Your task to perform on an android device: open device folders in google photos Image 0: 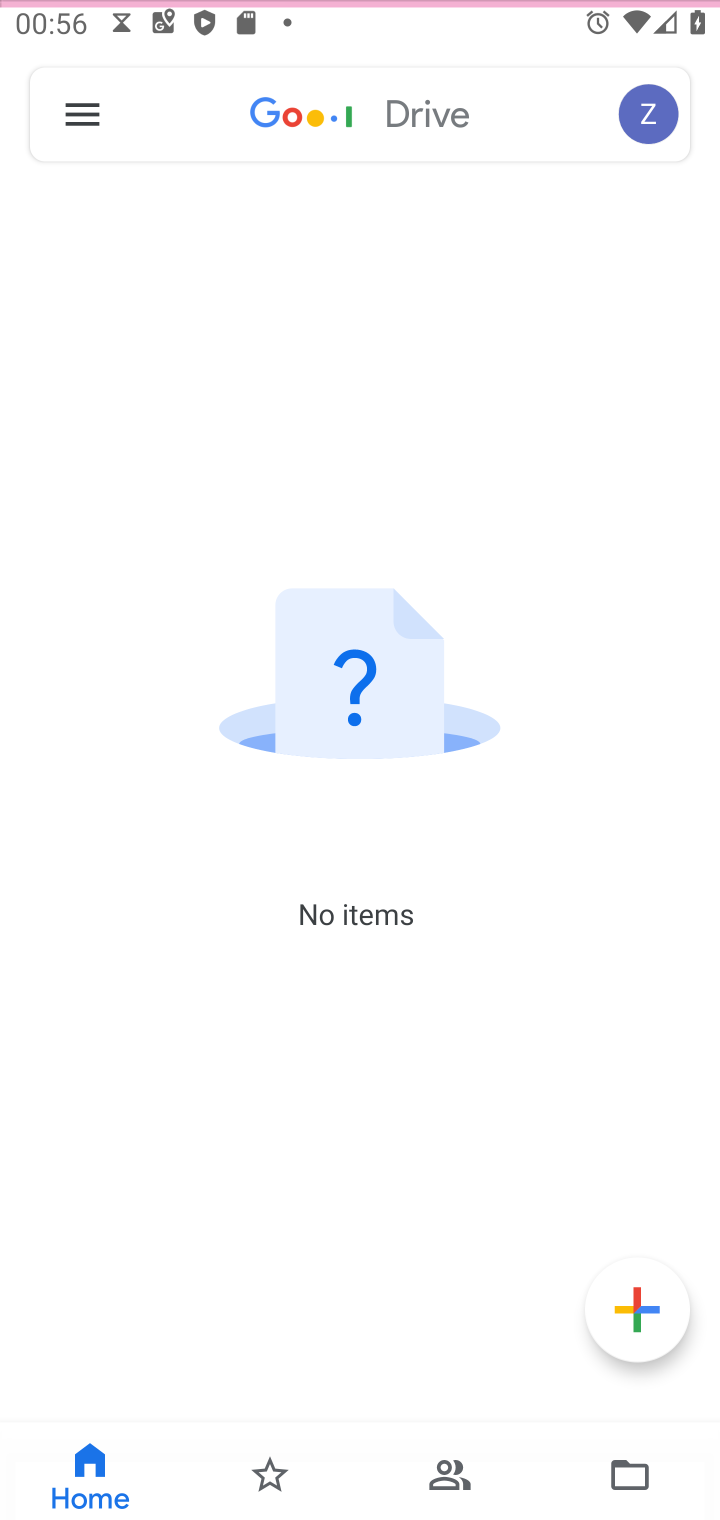
Step 0: press home button
Your task to perform on an android device: open device folders in google photos Image 1: 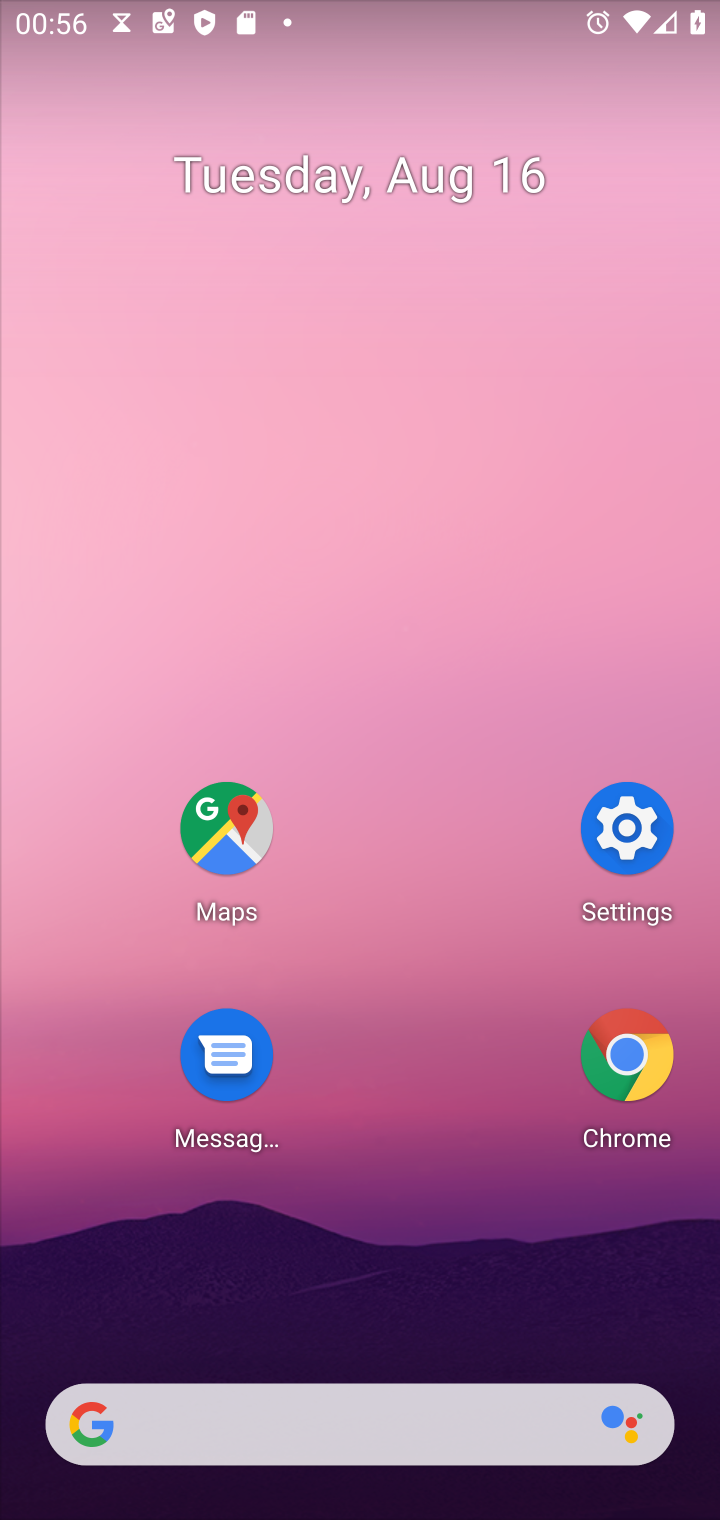
Step 1: press home button
Your task to perform on an android device: open device folders in google photos Image 2: 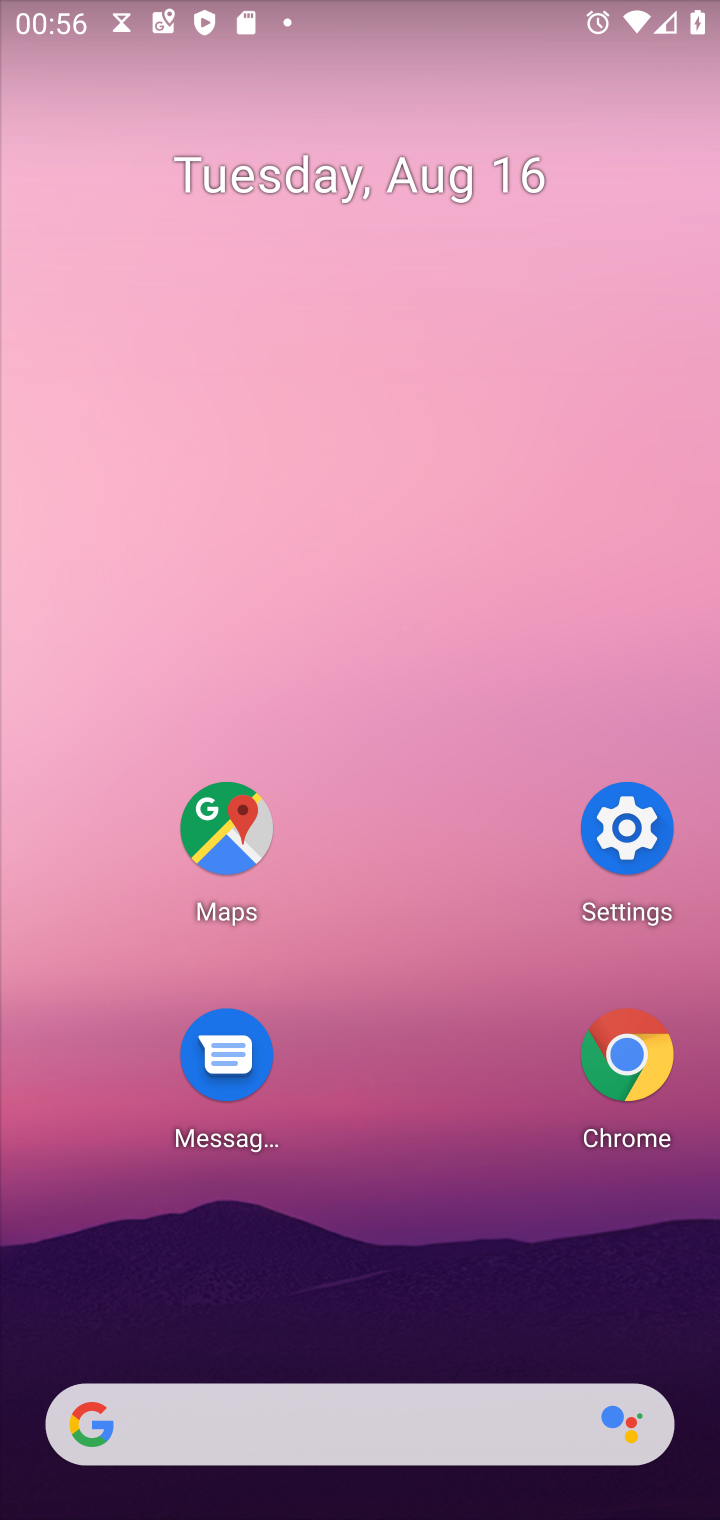
Step 2: drag from (412, 1055) to (545, 59)
Your task to perform on an android device: open device folders in google photos Image 3: 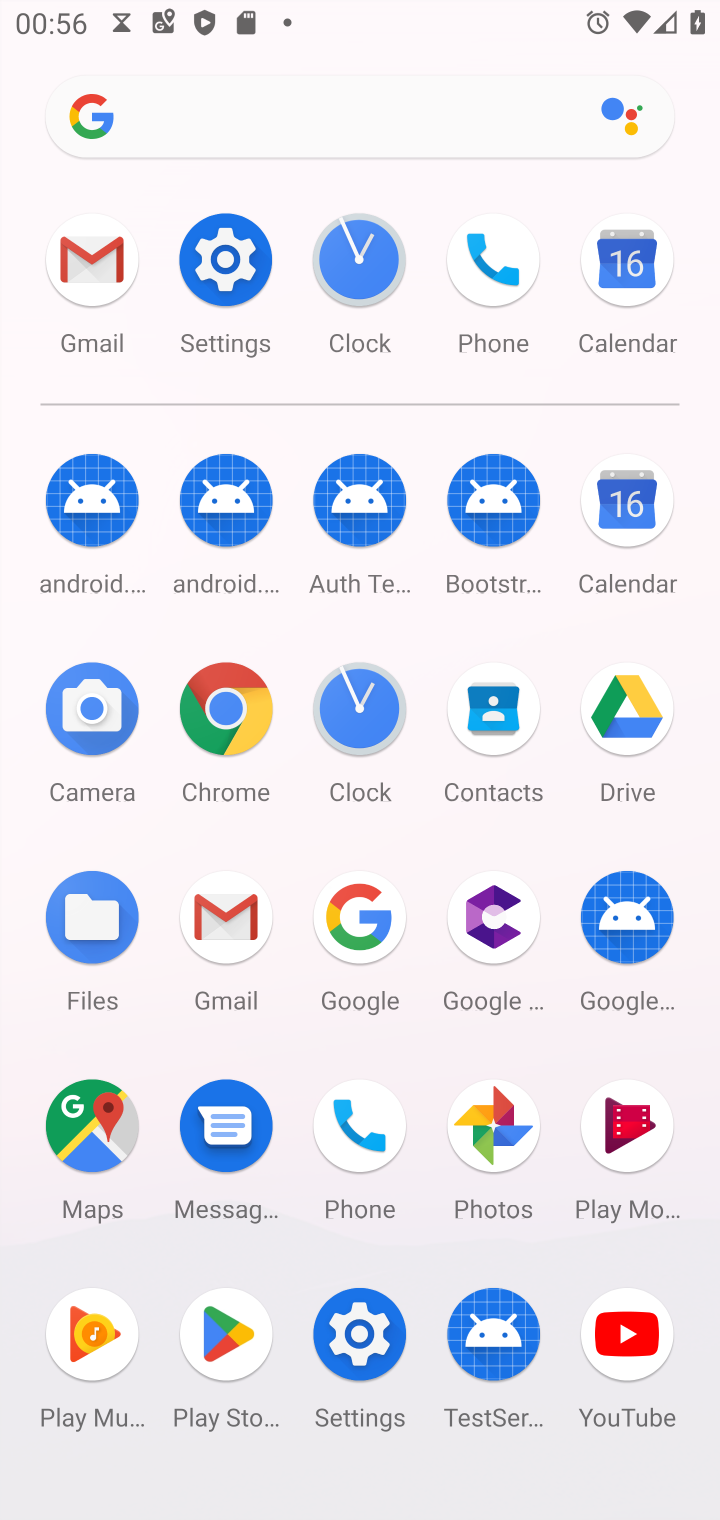
Step 3: click (502, 1116)
Your task to perform on an android device: open device folders in google photos Image 4: 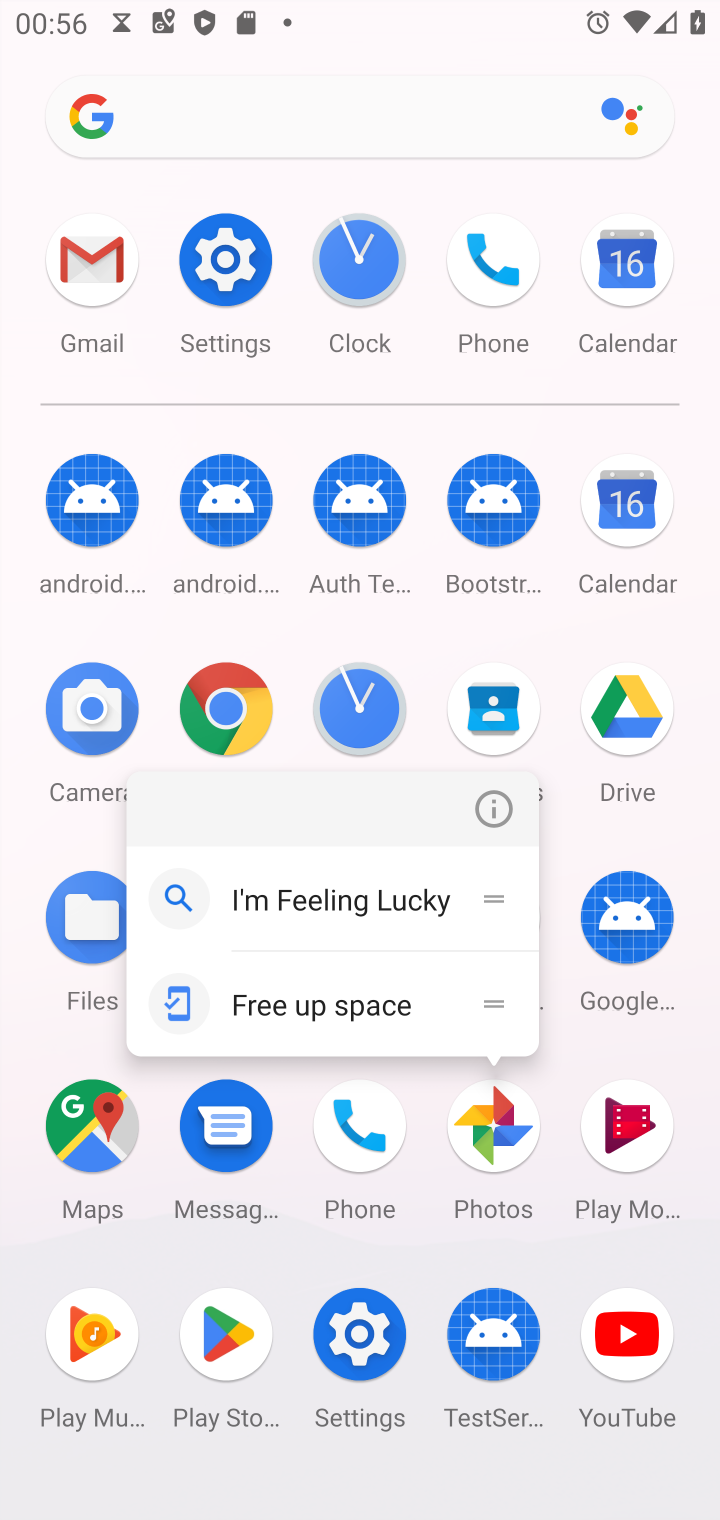
Step 4: click (494, 1131)
Your task to perform on an android device: open device folders in google photos Image 5: 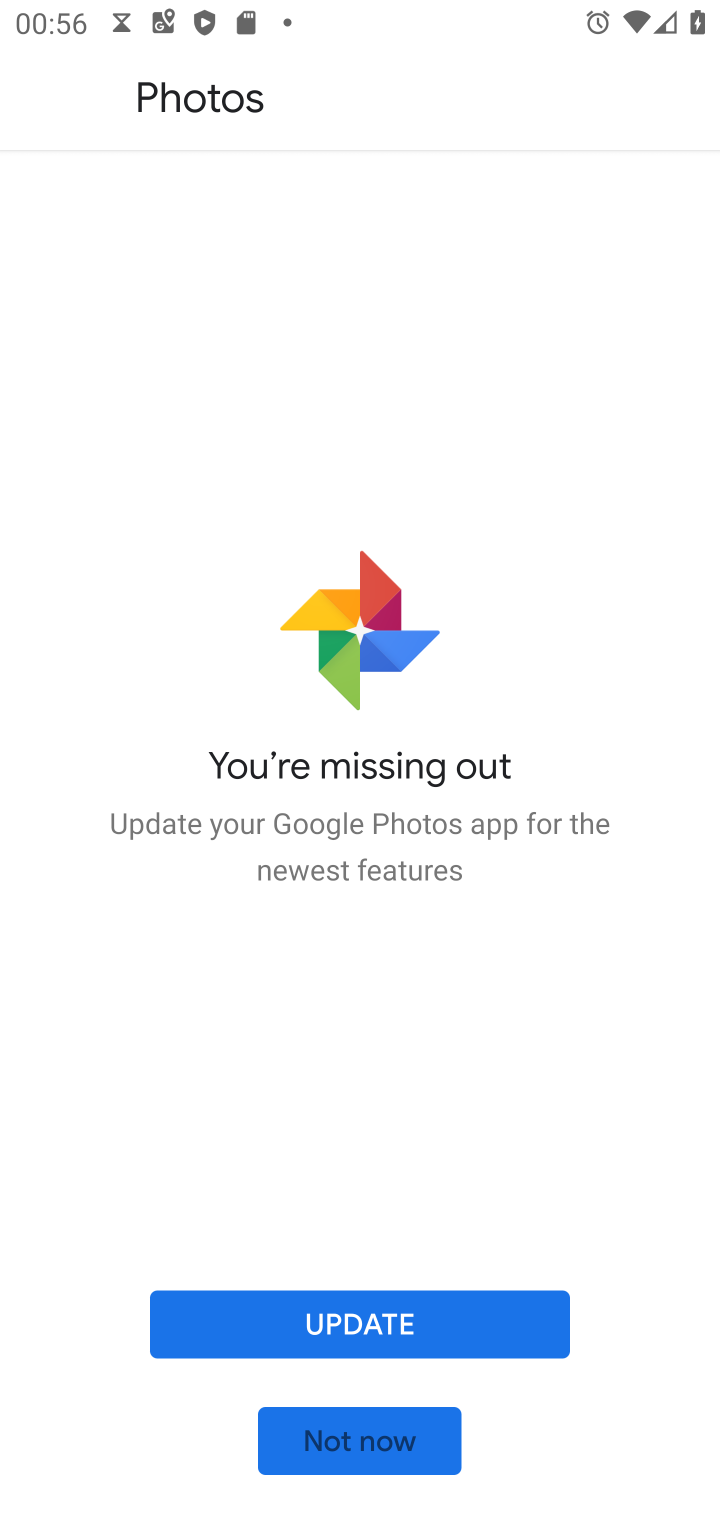
Step 5: click (373, 1309)
Your task to perform on an android device: open device folders in google photos Image 6: 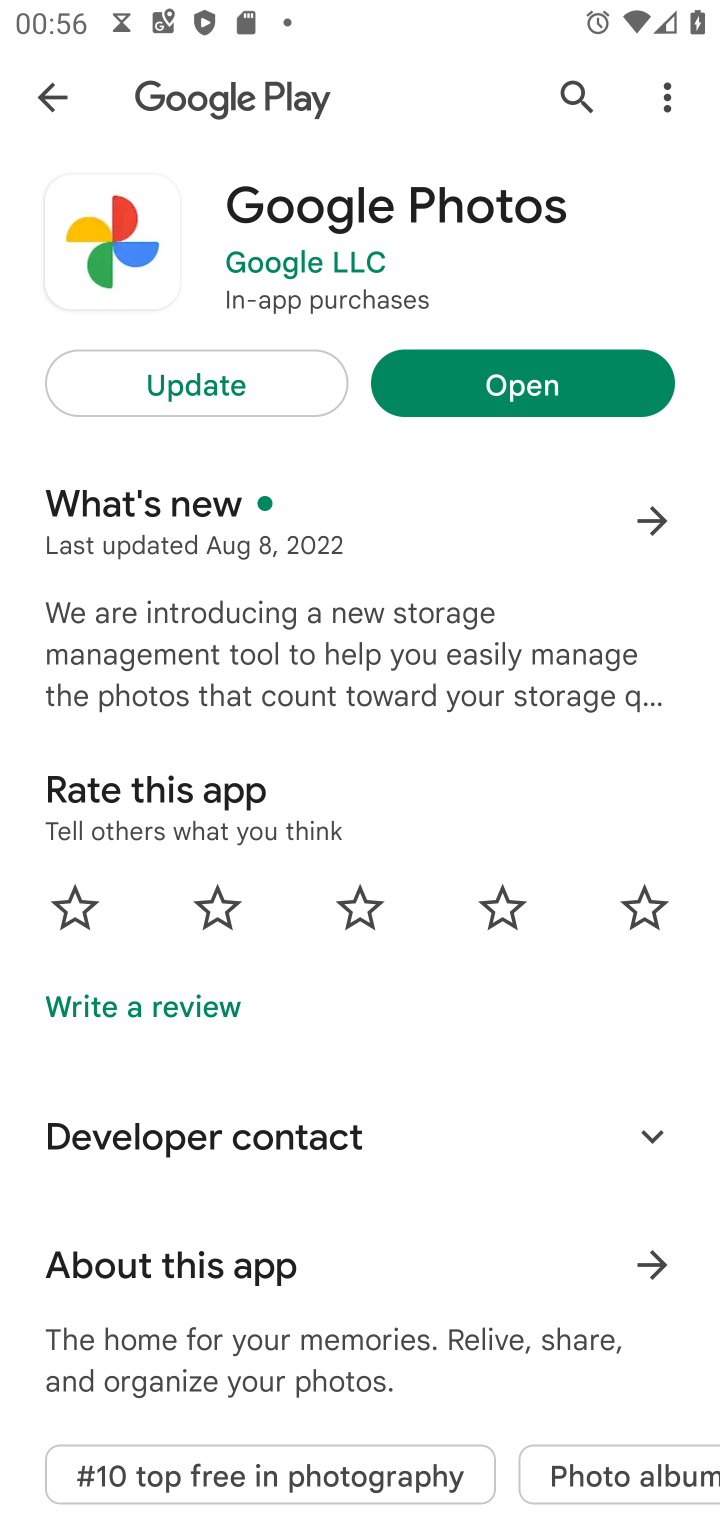
Step 6: click (200, 406)
Your task to perform on an android device: open device folders in google photos Image 7: 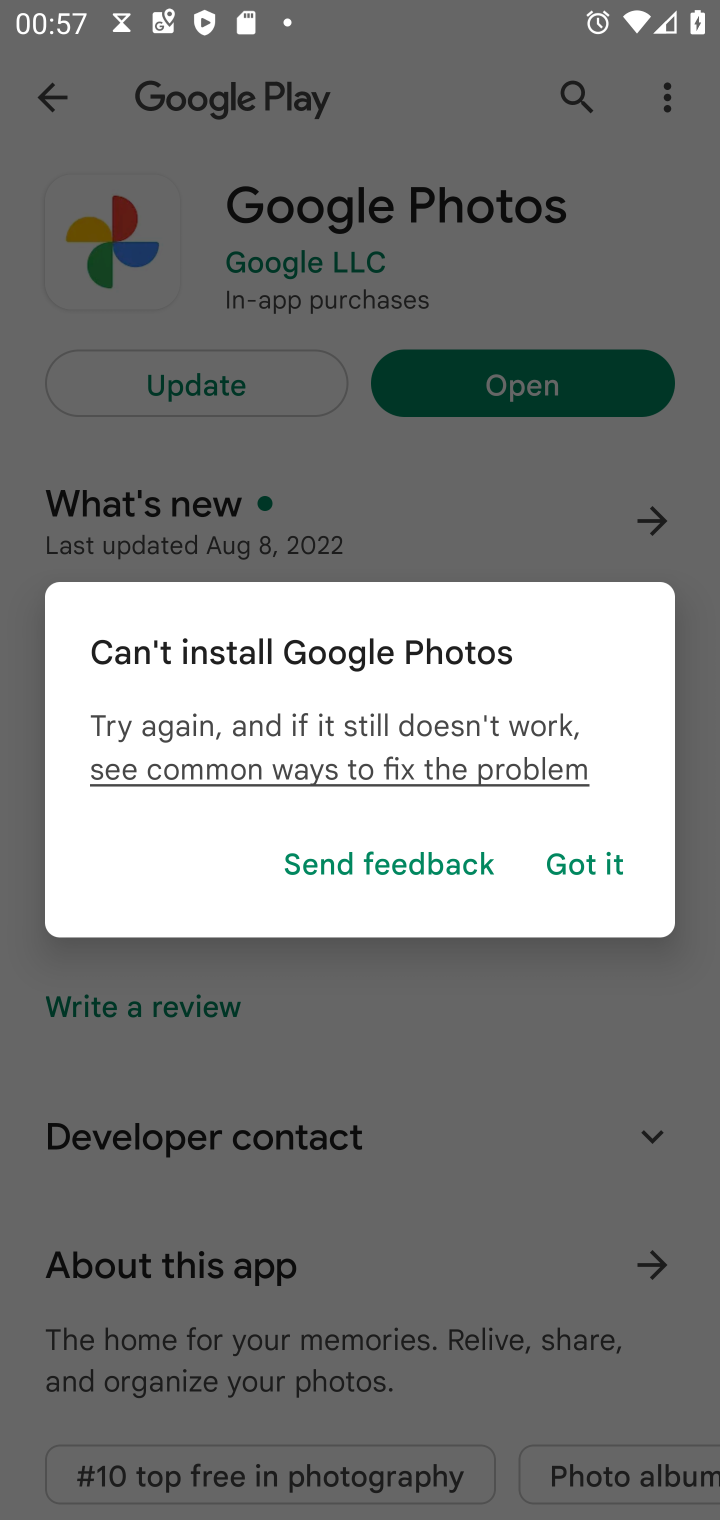
Step 7: click (597, 848)
Your task to perform on an android device: open device folders in google photos Image 8: 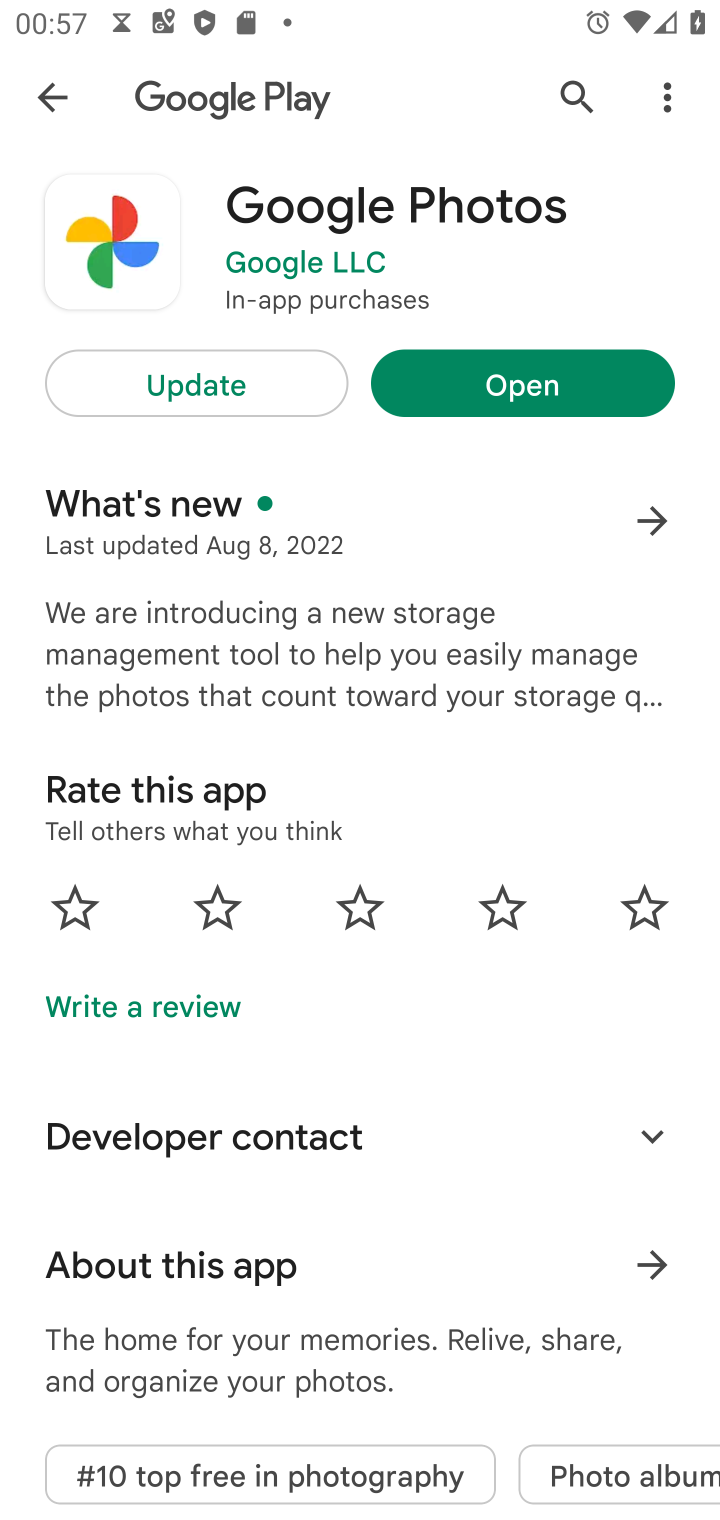
Step 8: task complete